Your task to perform on an android device: change the clock display to digital Image 0: 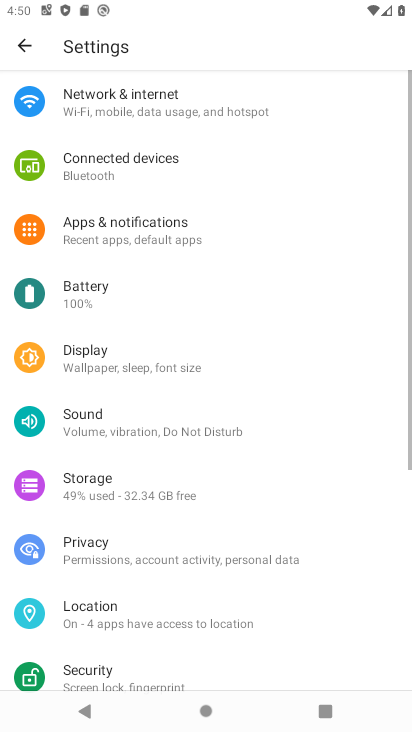
Step 0: press home button
Your task to perform on an android device: change the clock display to digital Image 1: 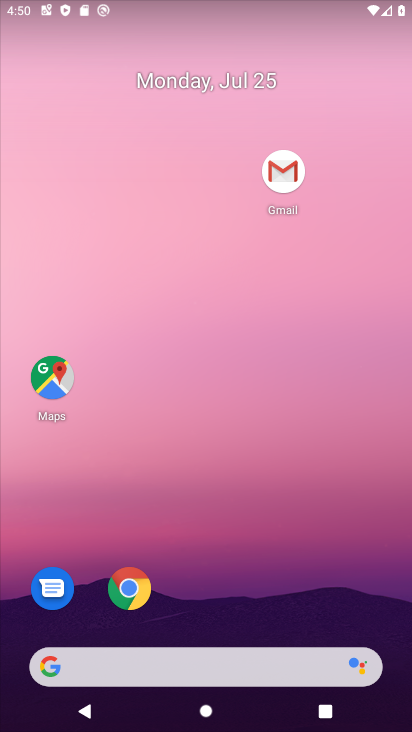
Step 1: drag from (361, 522) to (273, 96)
Your task to perform on an android device: change the clock display to digital Image 2: 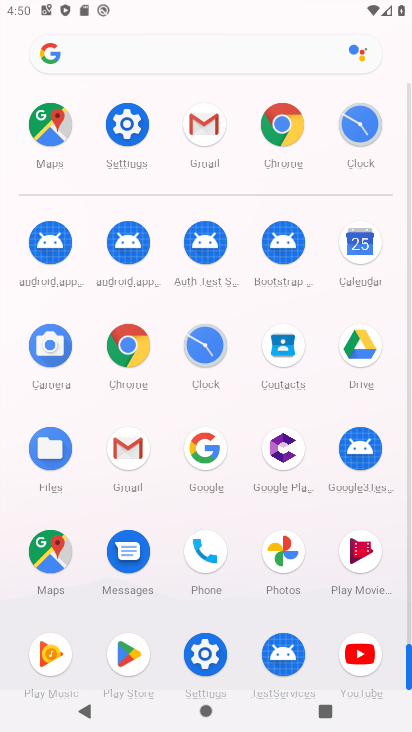
Step 2: click (206, 336)
Your task to perform on an android device: change the clock display to digital Image 3: 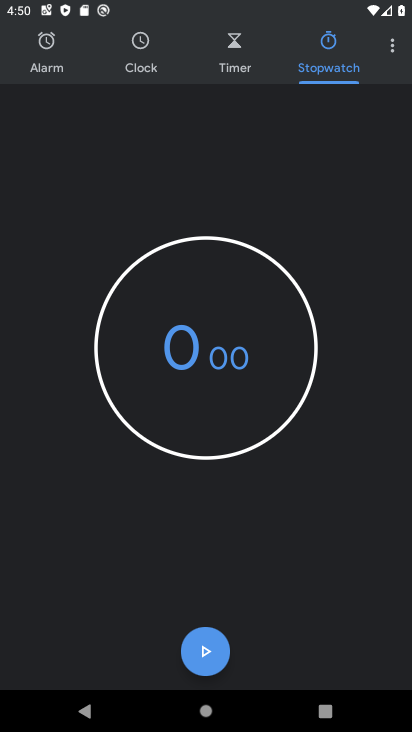
Step 3: click (394, 40)
Your task to perform on an android device: change the clock display to digital Image 4: 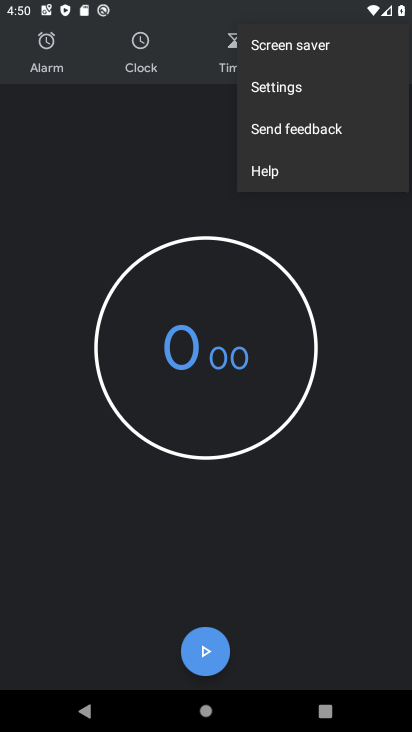
Step 4: click (315, 94)
Your task to perform on an android device: change the clock display to digital Image 5: 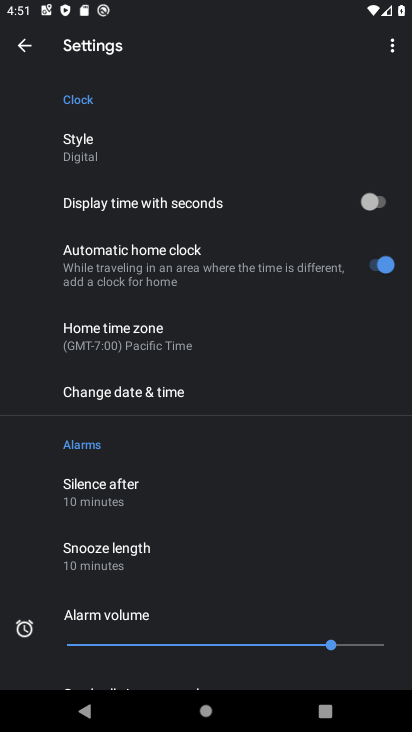
Step 5: task complete